Your task to perform on an android device: Go to sound settings Image 0: 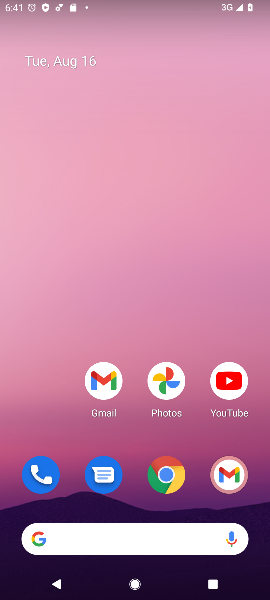
Step 0: drag from (50, 423) to (1, 3)
Your task to perform on an android device: Go to sound settings Image 1: 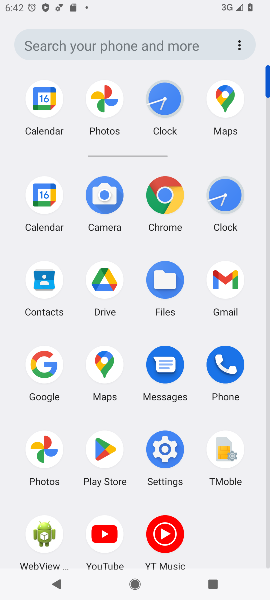
Step 1: click (158, 439)
Your task to perform on an android device: Go to sound settings Image 2: 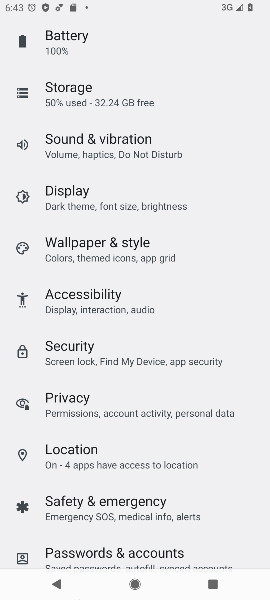
Step 2: drag from (87, 133) to (115, 510)
Your task to perform on an android device: Go to sound settings Image 3: 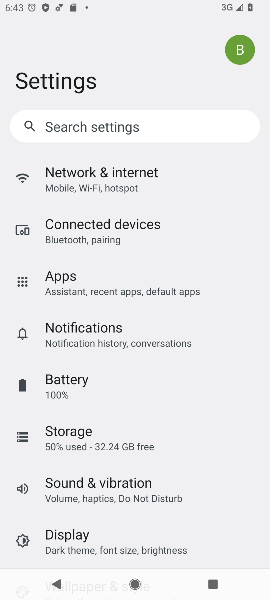
Step 3: click (102, 494)
Your task to perform on an android device: Go to sound settings Image 4: 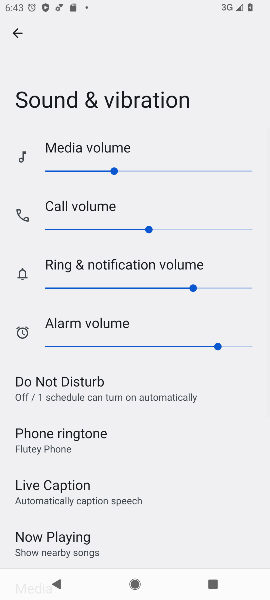
Step 4: task complete